Your task to perform on an android device: allow cookies in the chrome app Image 0: 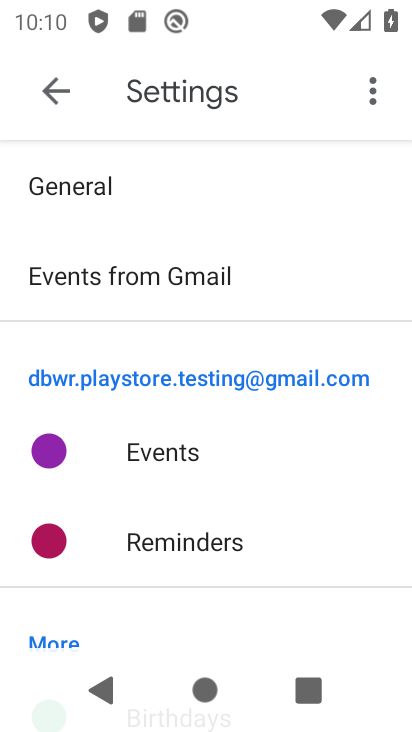
Step 0: press back button
Your task to perform on an android device: allow cookies in the chrome app Image 1: 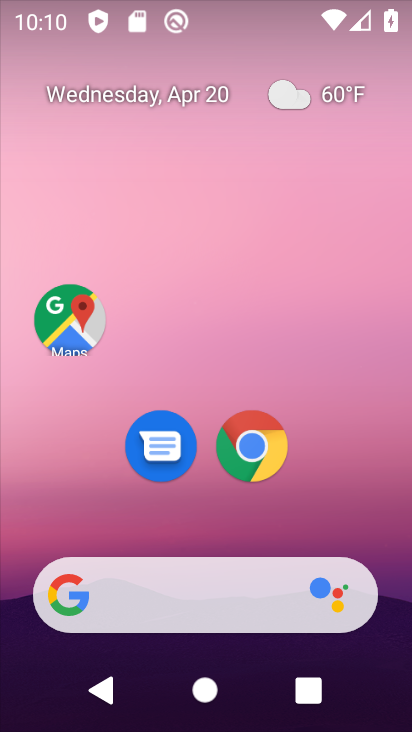
Step 1: drag from (395, 620) to (227, 7)
Your task to perform on an android device: allow cookies in the chrome app Image 2: 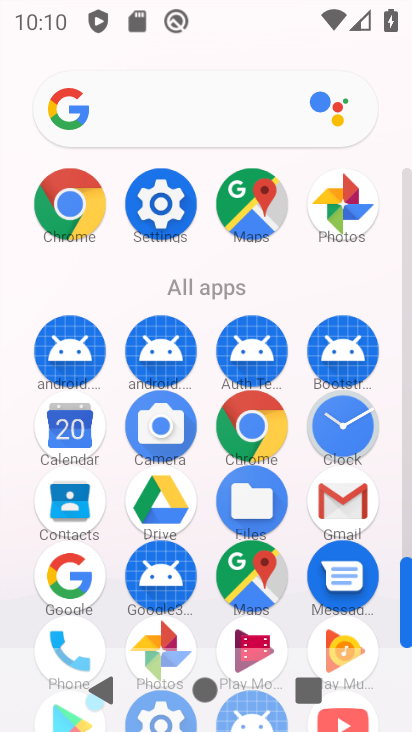
Step 2: click (70, 205)
Your task to perform on an android device: allow cookies in the chrome app Image 3: 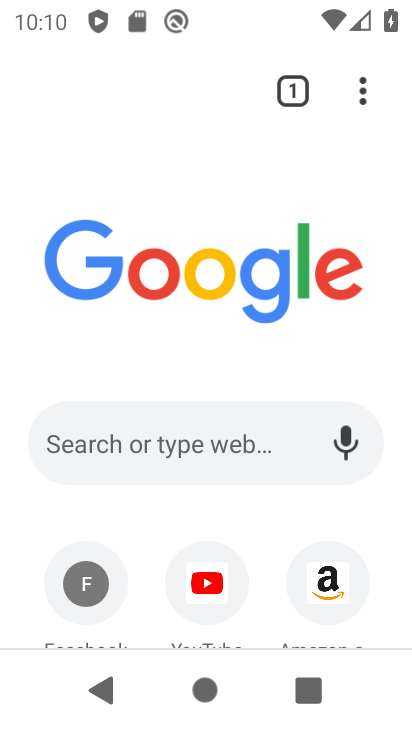
Step 3: drag from (358, 84) to (153, 479)
Your task to perform on an android device: allow cookies in the chrome app Image 4: 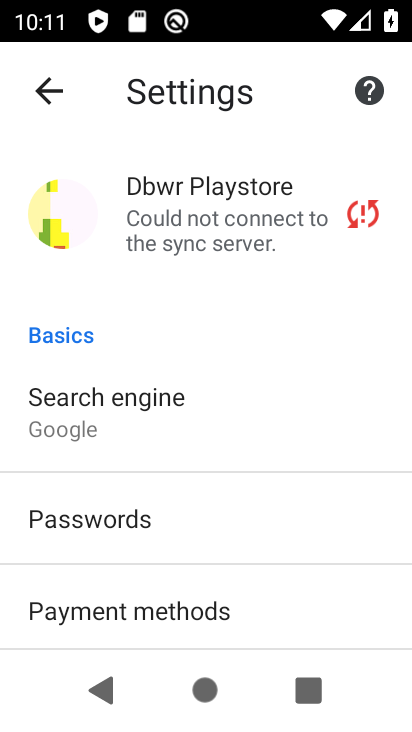
Step 4: drag from (207, 577) to (200, 233)
Your task to perform on an android device: allow cookies in the chrome app Image 5: 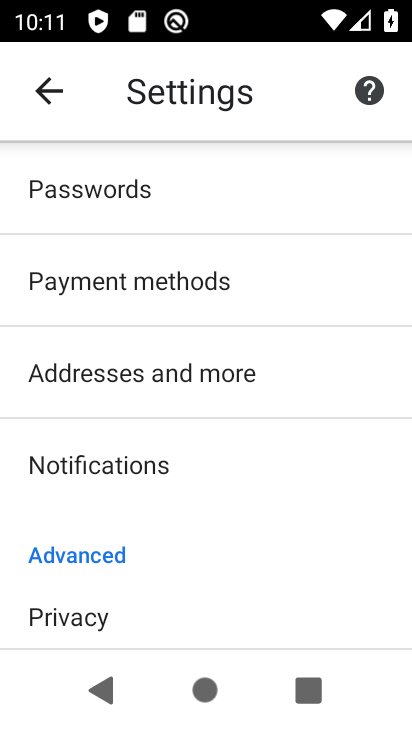
Step 5: drag from (212, 530) to (214, 222)
Your task to perform on an android device: allow cookies in the chrome app Image 6: 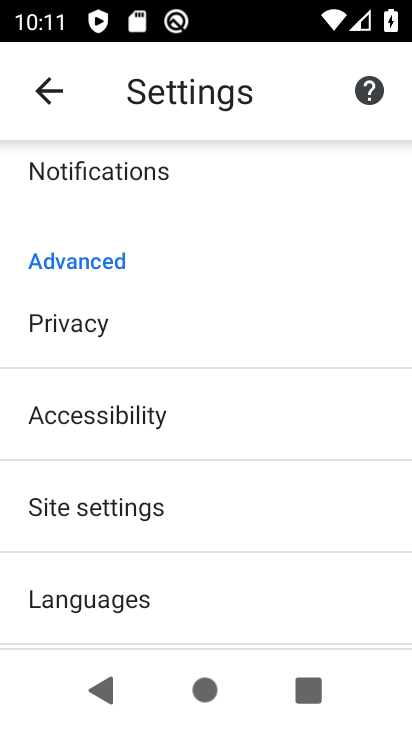
Step 6: drag from (224, 462) to (226, 182)
Your task to perform on an android device: allow cookies in the chrome app Image 7: 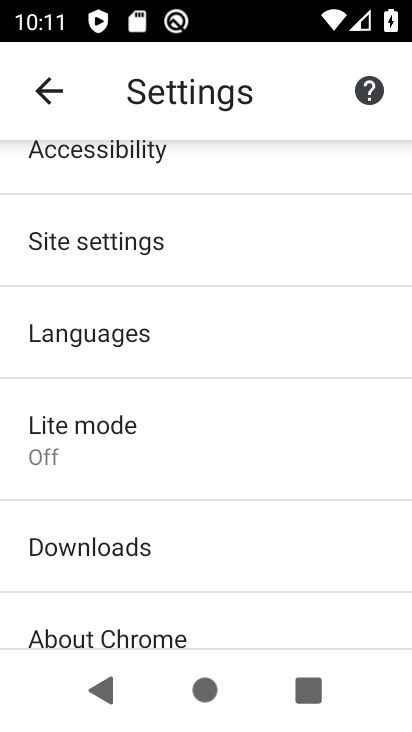
Step 7: click (182, 249)
Your task to perform on an android device: allow cookies in the chrome app Image 8: 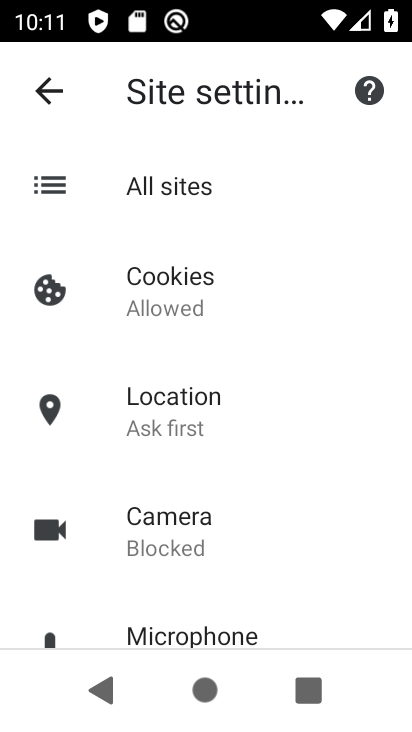
Step 8: drag from (283, 531) to (283, 361)
Your task to perform on an android device: allow cookies in the chrome app Image 9: 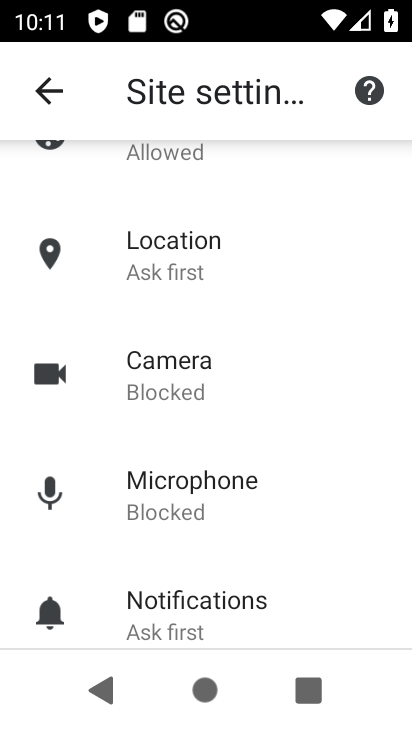
Step 9: drag from (261, 254) to (259, 422)
Your task to perform on an android device: allow cookies in the chrome app Image 10: 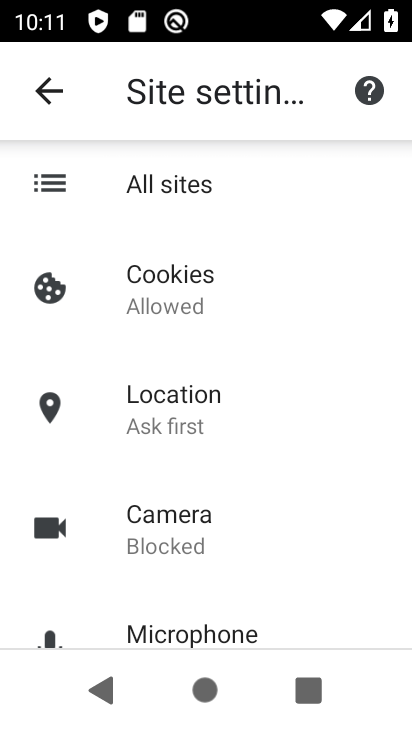
Step 10: click (235, 286)
Your task to perform on an android device: allow cookies in the chrome app Image 11: 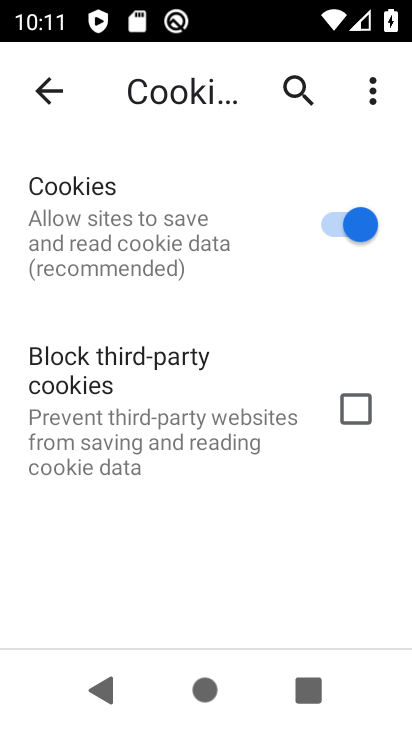
Step 11: task complete